Your task to perform on an android device: clear all cookies in the chrome app Image 0: 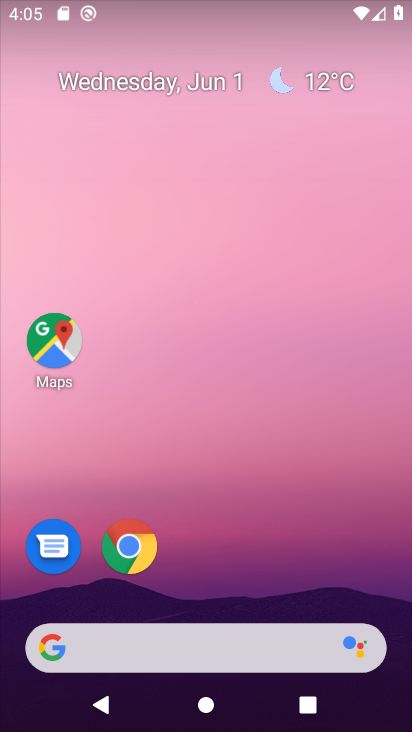
Step 0: click (139, 554)
Your task to perform on an android device: clear all cookies in the chrome app Image 1: 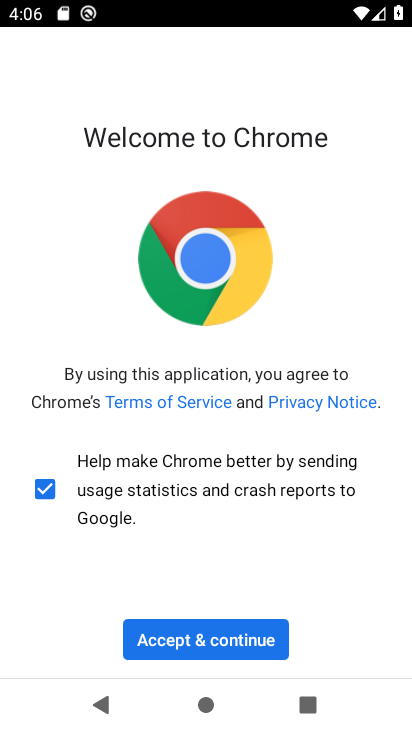
Step 1: click (247, 653)
Your task to perform on an android device: clear all cookies in the chrome app Image 2: 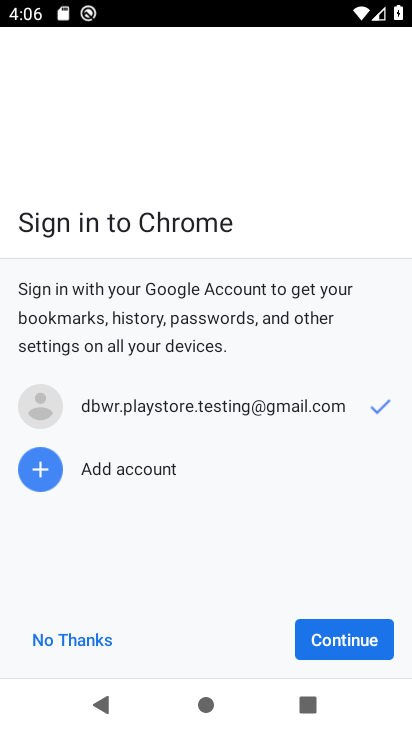
Step 2: click (289, 645)
Your task to perform on an android device: clear all cookies in the chrome app Image 3: 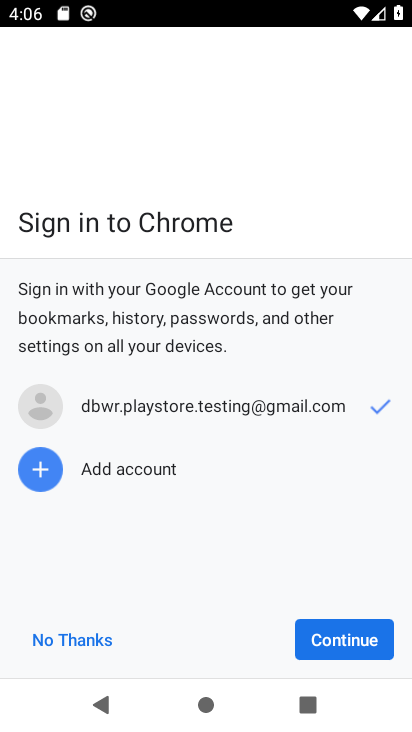
Step 3: click (359, 646)
Your task to perform on an android device: clear all cookies in the chrome app Image 4: 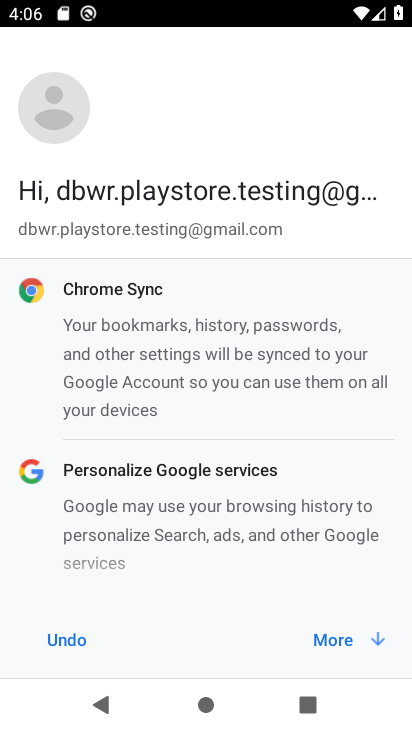
Step 4: click (368, 648)
Your task to perform on an android device: clear all cookies in the chrome app Image 5: 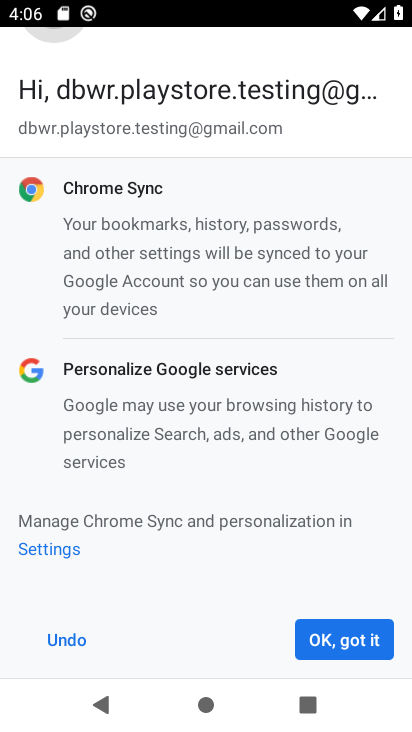
Step 5: click (362, 652)
Your task to perform on an android device: clear all cookies in the chrome app Image 6: 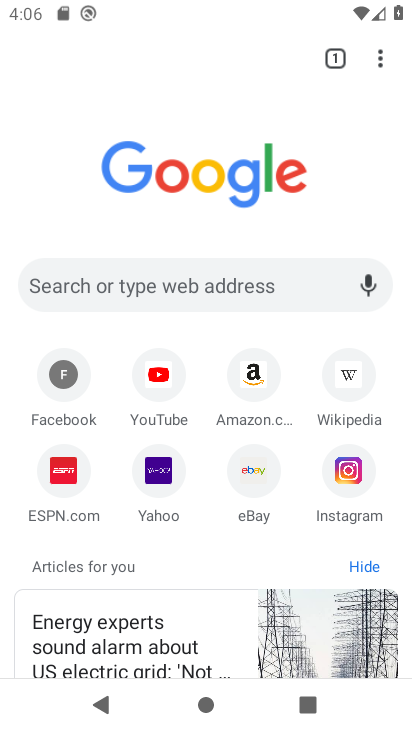
Step 6: drag from (401, 53) to (275, 482)
Your task to perform on an android device: clear all cookies in the chrome app Image 7: 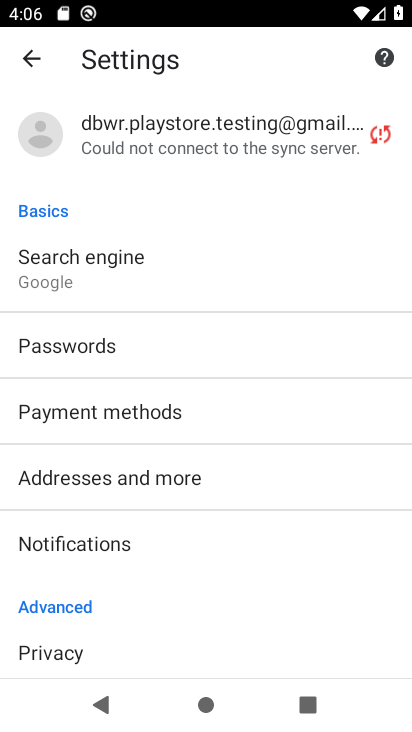
Step 7: drag from (217, 578) to (276, 386)
Your task to perform on an android device: clear all cookies in the chrome app Image 8: 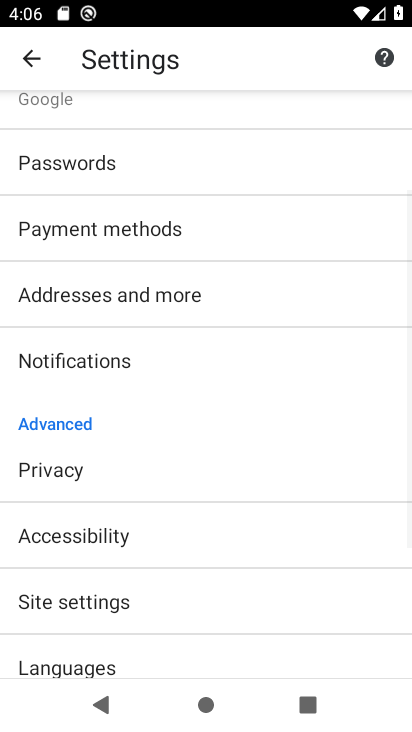
Step 8: click (107, 472)
Your task to perform on an android device: clear all cookies in the chrome app Image 9: 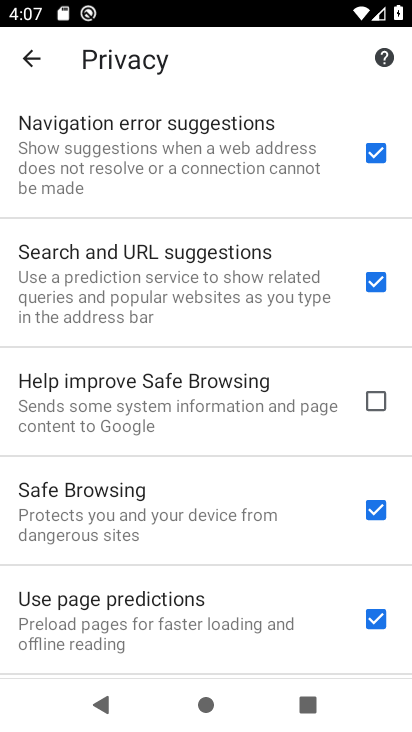
Step 9: drag from (175, 674) to (255, 357)
Your task to perform on an android device: clear all cookies in the chrome app Image 10: 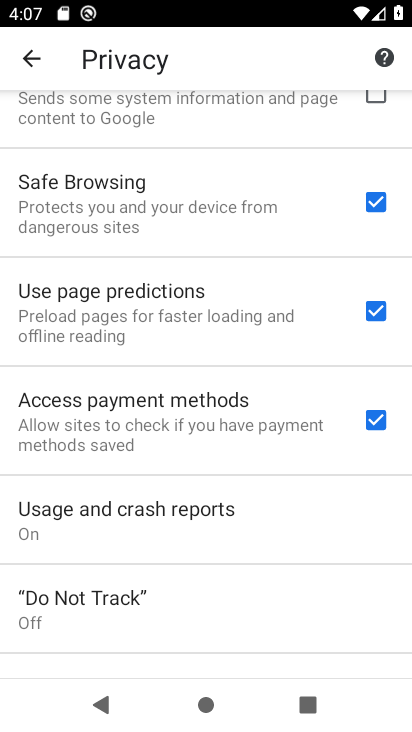
Step 10: drag from (166, 654) to (250, 279)
Your task to perform on an android device: clear all cookies in the chrome app Image 11: 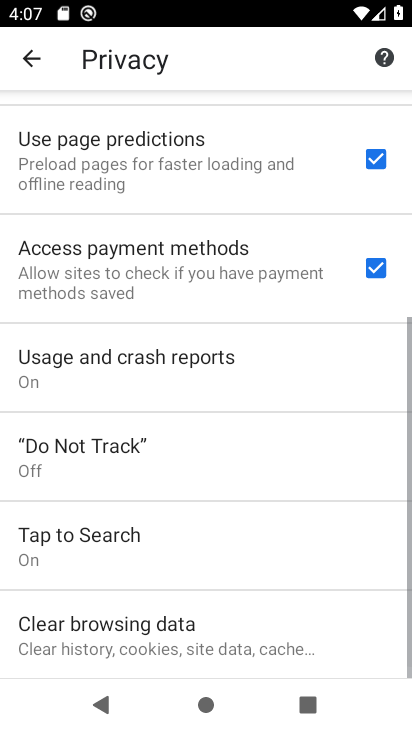
Step 11: click (192, 629)
Your task to perform on an android device: clear all cookies in the chrome app Image 12: 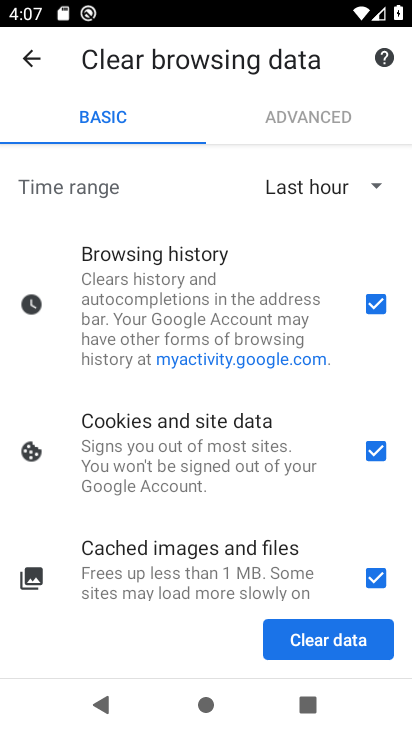
Step 12: click (372, 305)
Your task to perform on an android device: clear all cookies in the chrome app Image 13: 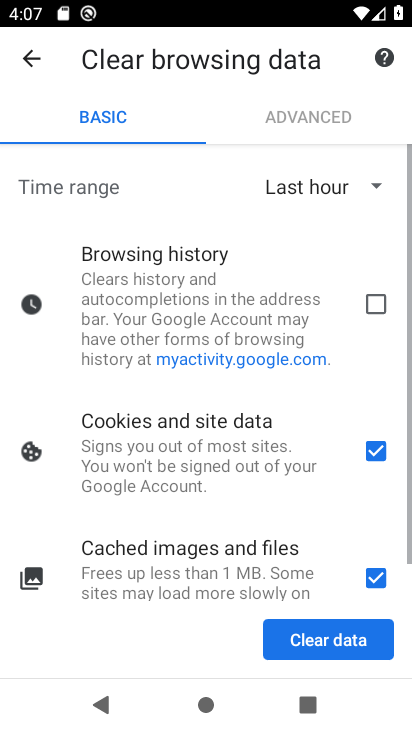
Step 13: click (379, 574)
Your task to perform on an android device: clear all cookies in the chrome app Image 14: 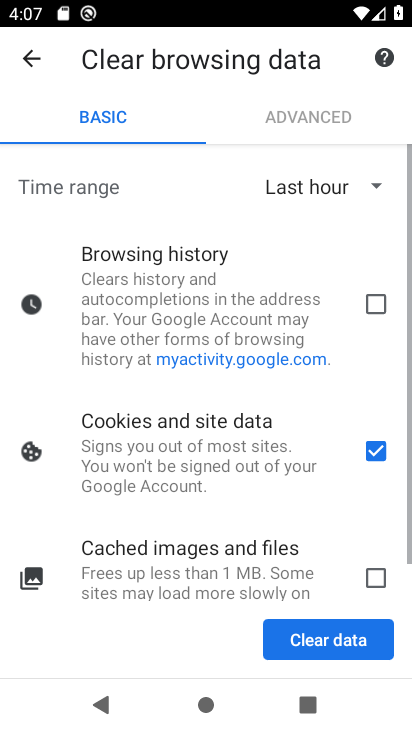
Step 14: drag from (233, 591) to (298, 263)
Your task to perform on an android device: clear all cookies in the chrome app Image 15: 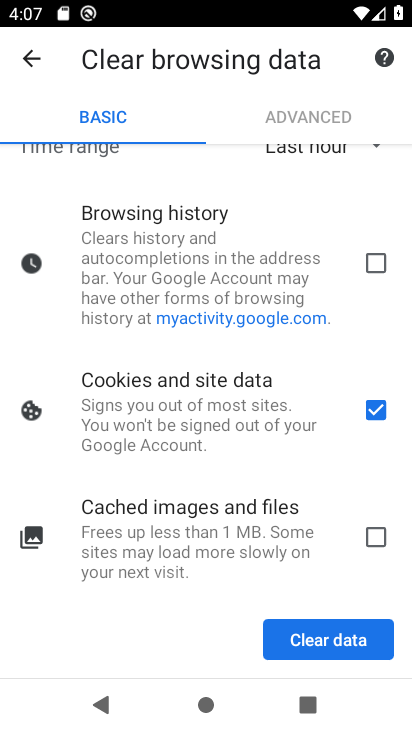
Step 15: click (368, 652)
Your task to perform on an android device: clear all cookies in the chrome app Image 16: 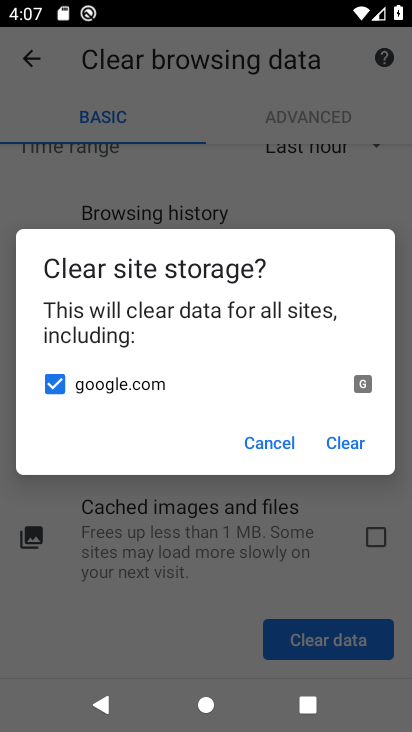
Step 16: click (363, 450)
Your task to perform on an android device: clear all cookies in the chrome app Image 17: 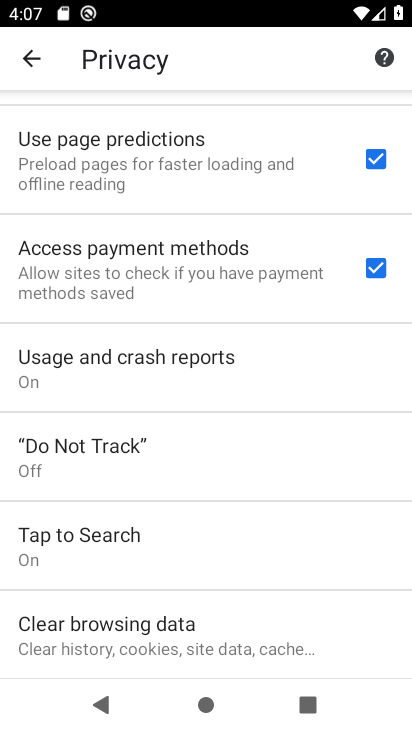
Step 17: task complete